Your task to perform on an android device: open a new tab in the chrome app Image 0: 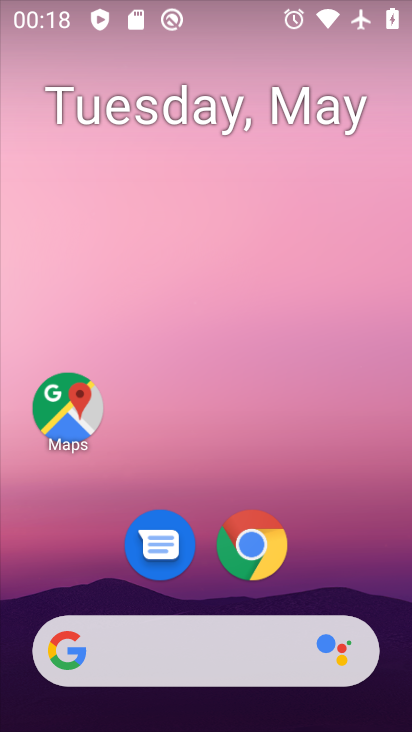
Step 0: click (248, 547)
Your task to perform on an android device: open a new tab in the chrome app Image 1: 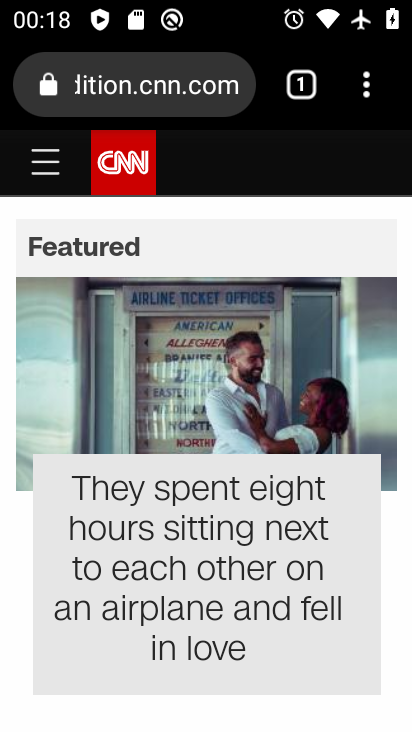
Step 1: click (353, 99)
Your task to perform on an android device: open a new tab in the chrome app Image 2: 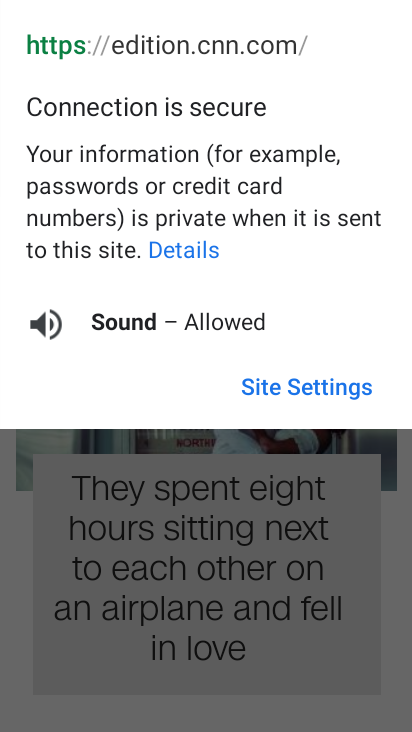
Step 2: click (264, 543)
Your task to perform on an android device: open a new tab in the chrome app Image 3: 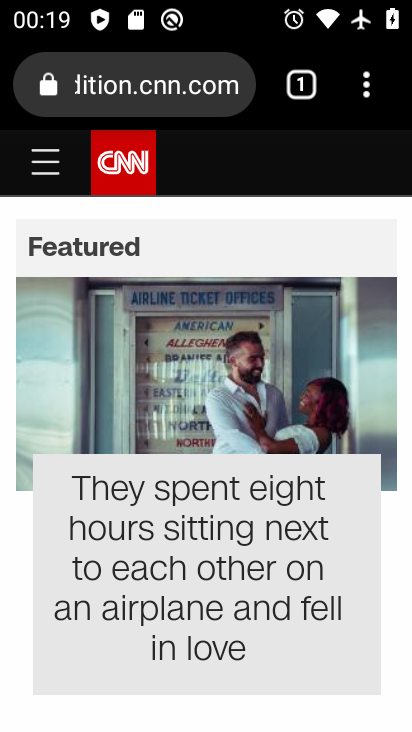
Step 3: click (365, 120)
Your task to perform on an android device: open a new tab in the chrome app Image 4: 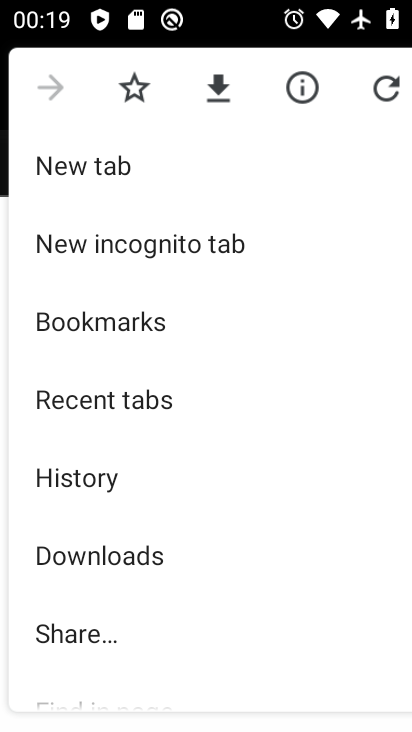
Step 4: click (95, 174)
Your task to perform on an android device: open a new tab in the chrome app Image 5: 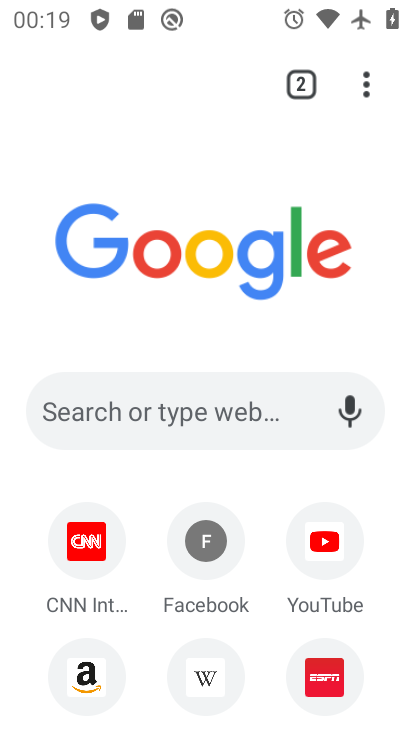
Step 5: task complete